Your task to perform on an android device: open device folders in google photos Image 0: 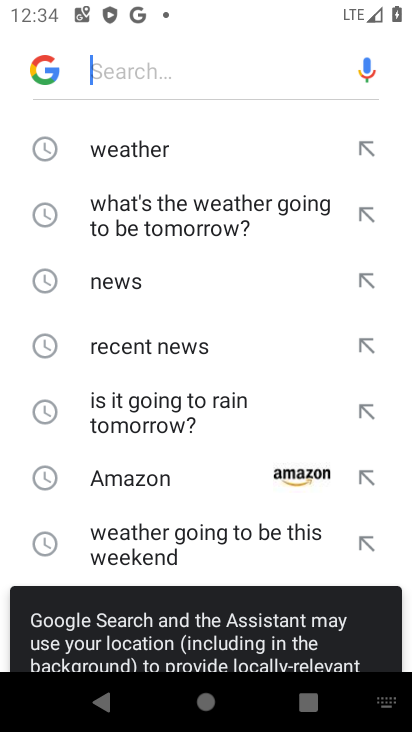
Step 0: press back button
Your task to perform on an android device: open device folders in google photos Image 1: 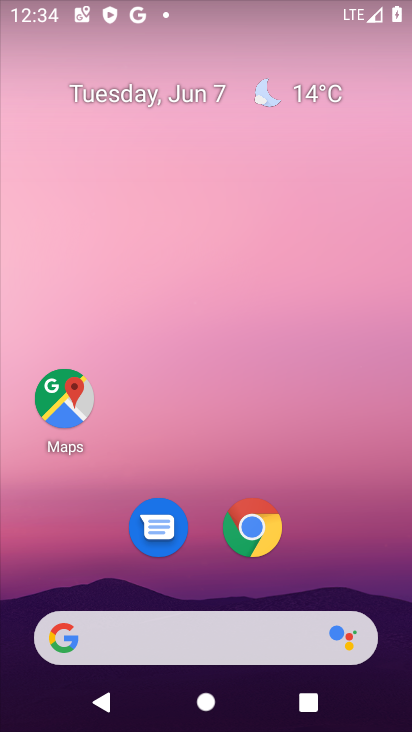
Step 1: drag from (322, 533) to (246, 32)
Your task to perform on an android device: open device folders in google photos Image 2: 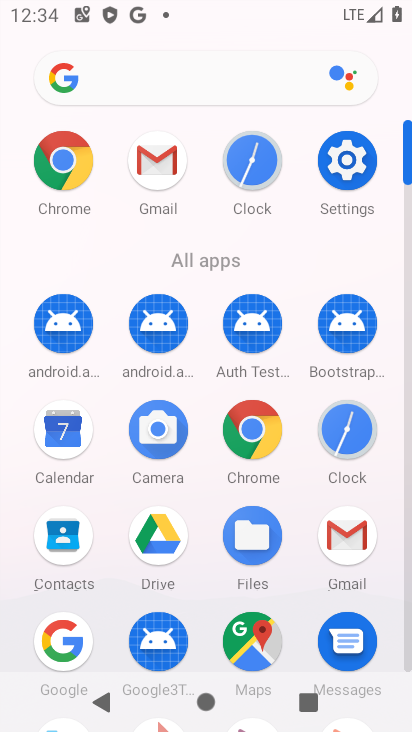
Step 2: drag from (23, 559) to (17, 232)
Your task to perform on an android device: open device folders in google photos Image 3: 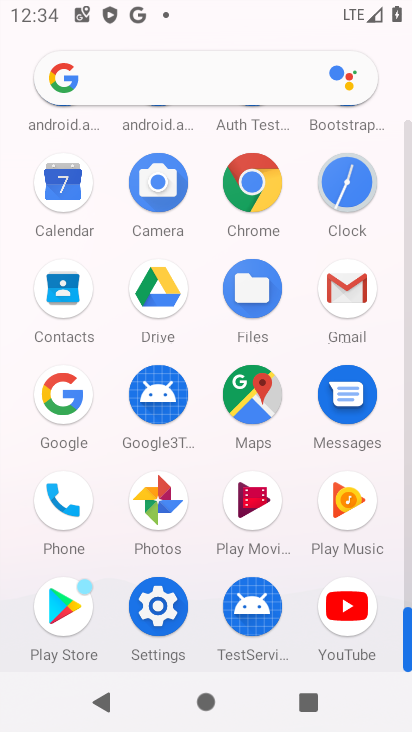
Step 3: click (161, 492)
Your task to perform on an android device: open device folders in google photos Image 4: 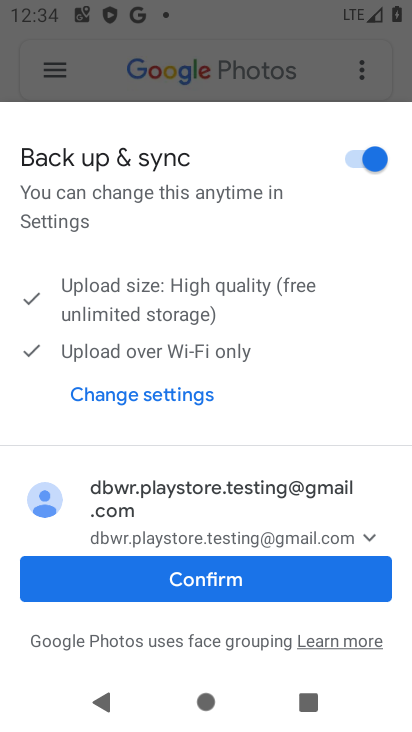
Step 4: click (210, 586)
Your task to perform on an android device: open device folders in google photos Image 5: 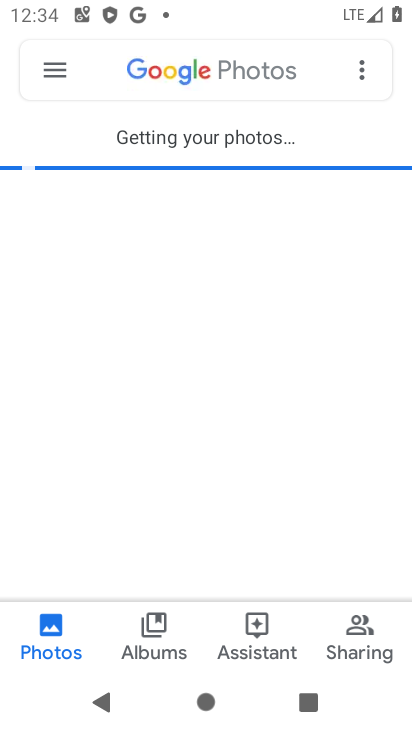
Step 5: click (55, 67)
Your task to perform on an android device: open device folders in google photos Image 6: 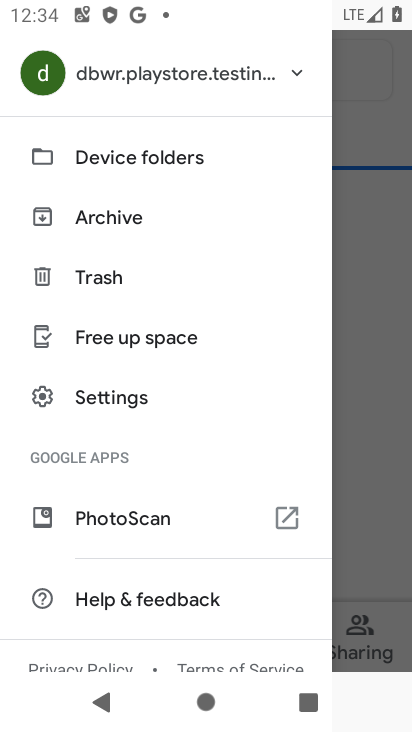
Step 6: click (114, 166)
Your task to perform on an android device: open device folders in google photos Image 7: 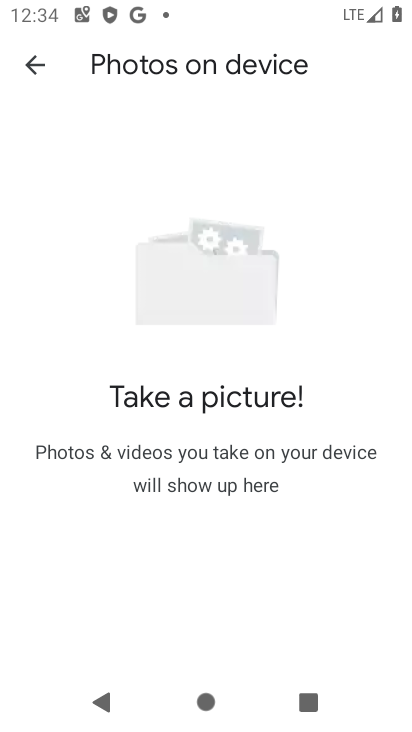
Step 7: task complete